Your task to perform on an android device: find which apps use the phone's location Image 0: 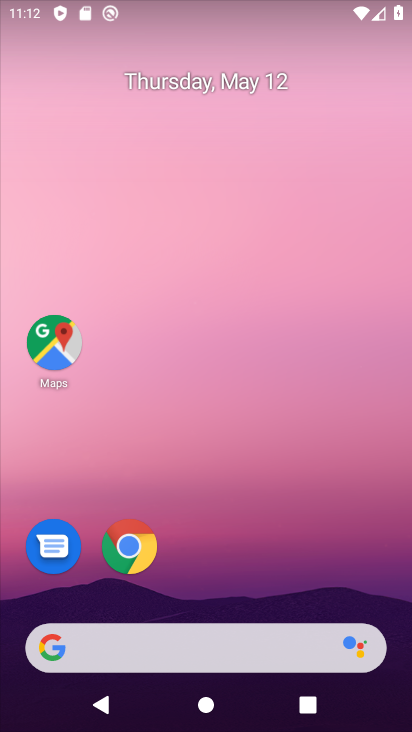
Step 0: drag from (219, 725) to (187, 177)
Your task to perform on an android device: find which apps use the phone's location Image 1: 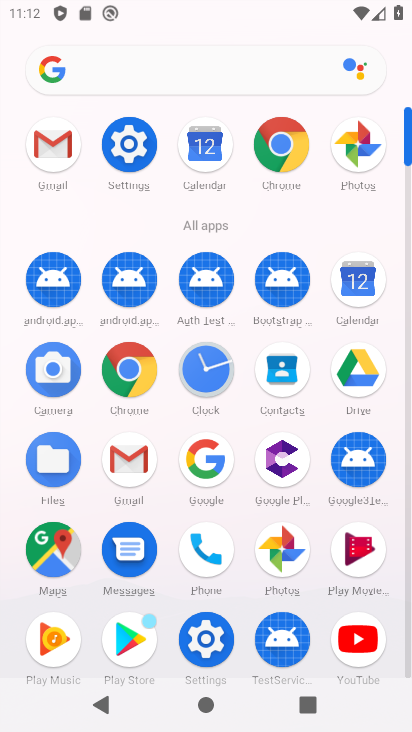
Step 1: click (129, 149)
Your task to perform on an android device: find which apps use the phone's location Image 2: 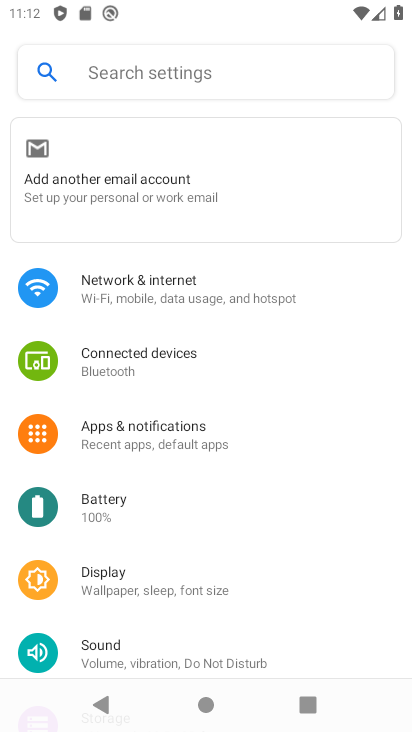
Step 2: drag from (184, 623) to (182, 223)
Your task to perform on an android device: find which apps use the phone's location Image 3: 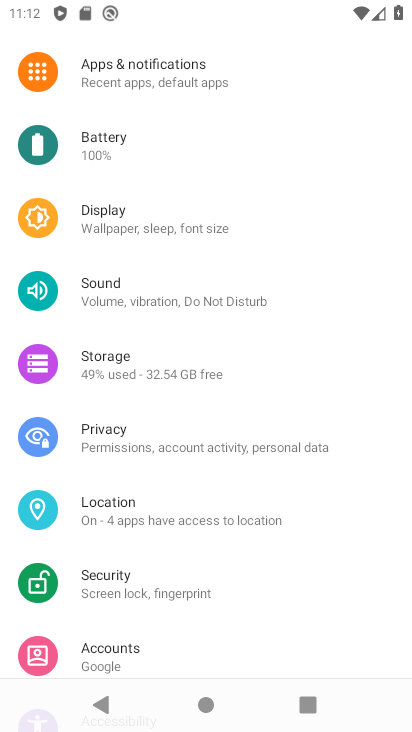
Step 3: click (120, 502)
Your task to perform on an android device: find which apps use the phone's location Image 4: 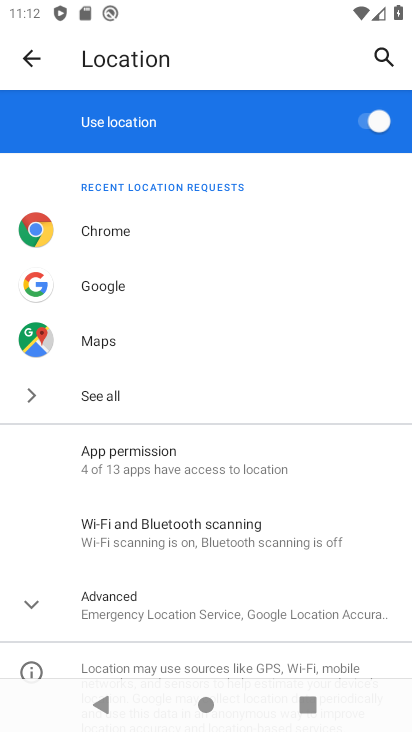
Step 4: click (138, 458)
Your task to perform on an android device: find which apps use the phone's location Image 5: 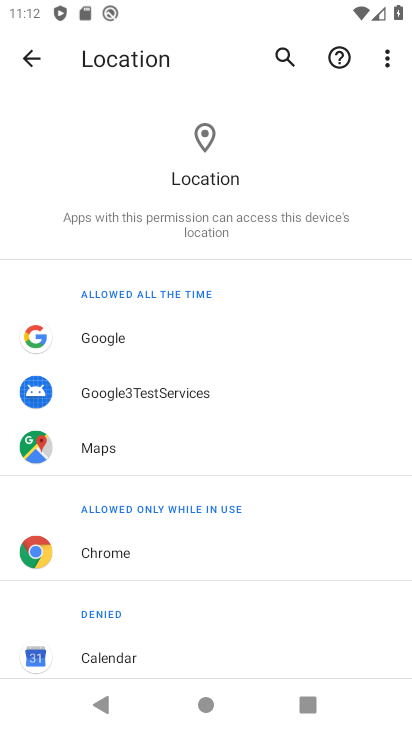
Step 5: task complete